Your task to perform on an android device: Show me the alarms in the clock app Image 0: 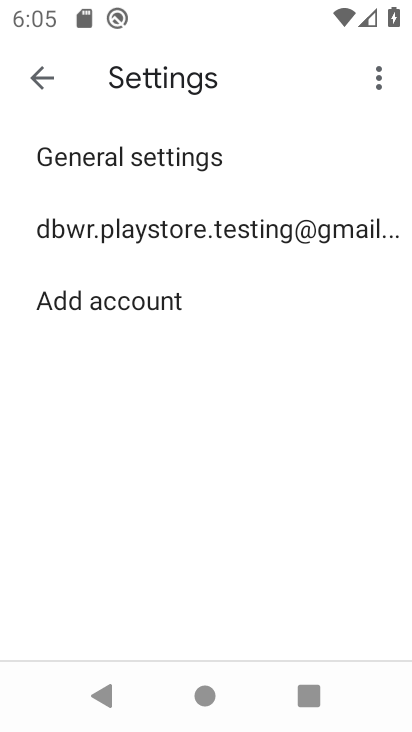
Step 0: press home button
Your task to perform on an android device: Show me the alarms in the clock app Image 1: 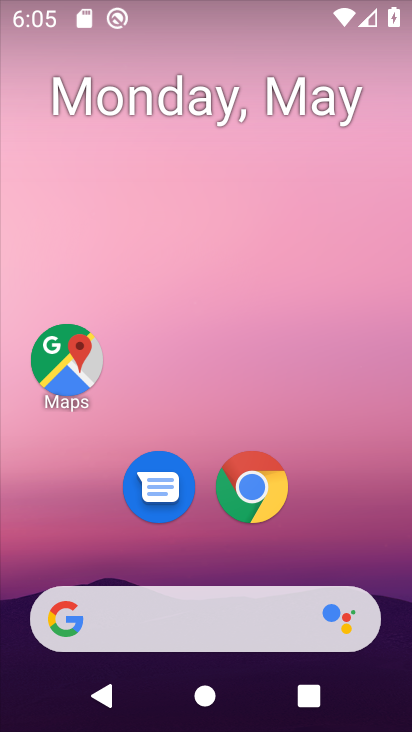
Step 1: drag from (219, 562) to (228, 18)
Your task to perform on an android device: Show me the alarms in the clock app Image 2: 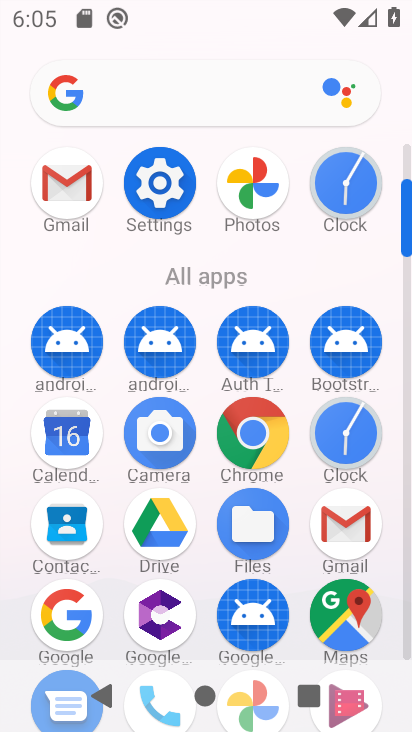
Step 2: click (344, 170)
Your task to perform on an android device: Show me the alarms in the clock app Image 3: 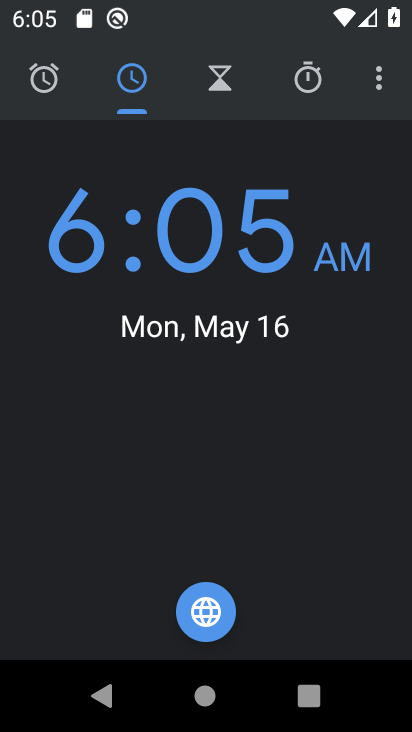
Step 3: click (32, 72)
Your task to perform on an android device: Show me the alarms in the clock app Image 4: 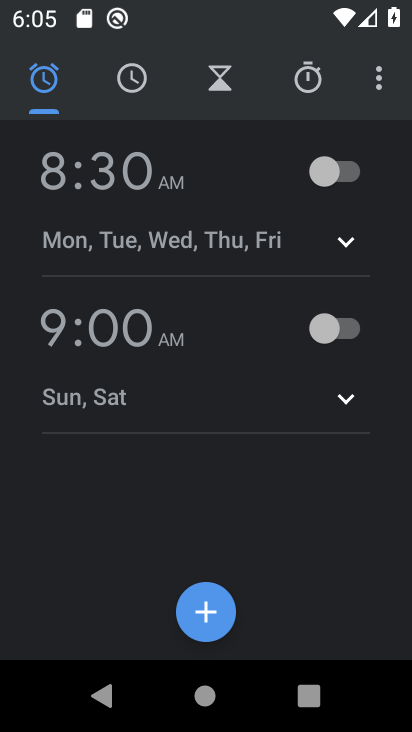
Step 4: task complete